Your task to perform on an android device: Turn off the flashlight Image 0: 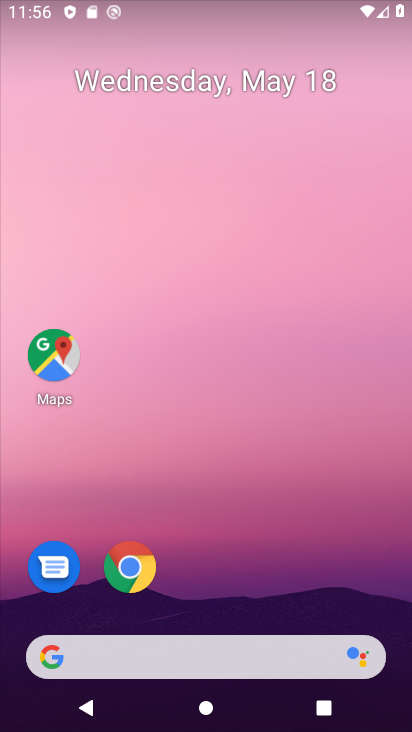
Step 0: drag from (231, 583) to (264, 245)
Your task to perform on an android device: Turn off the flashlight Image 1: 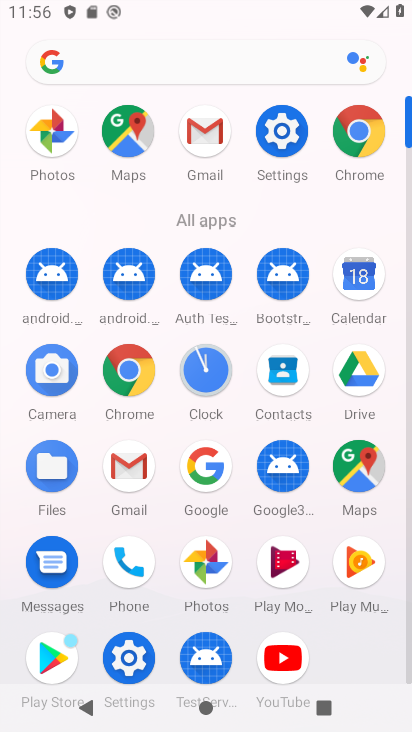
Step 1: click (285, 129)
Your task to perform on an android device: Turn off the flashlight Image 2: 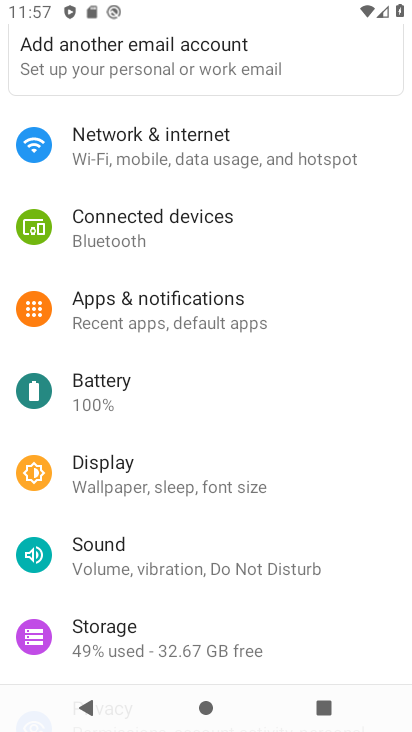
Step 2: task complete